Your task to perform on an android device: open app "NewsBreak: Local News & Alerts" (install if not already installed) and enter user name: "switch@outlook.com" and password: "fabrics" Image 0: 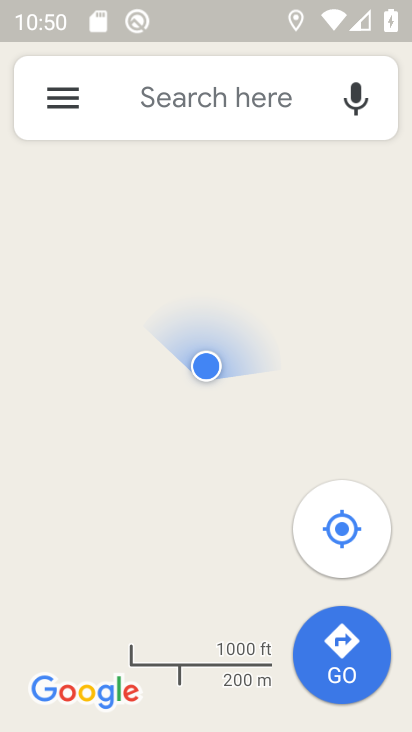
Step 0: press home button
Your task to perform on an android device: open app "NewsBreak: Local News & Alerts" (install if not already installed) and enter user name: "switch@outlook.com" and password: "fabrics" Image 1: 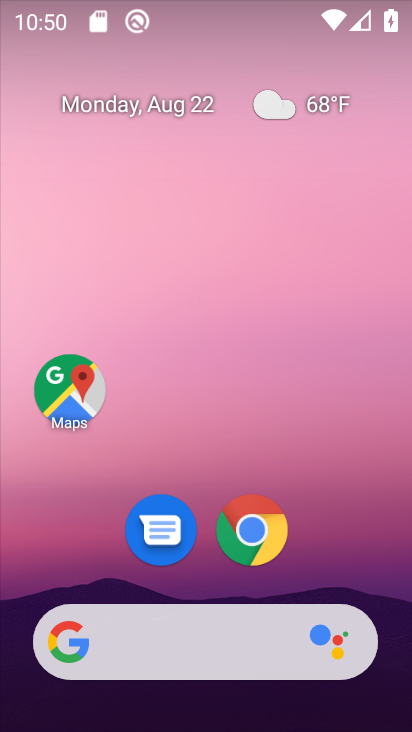
Step 1: drag from (183, 616) to (168, 19)
Your task to perform on an android device: open app "NewsBreak: Local News & Alerts" (install if not already installed) and enter user name: "switch@outlook.com" and password: "fabrics" Image 2: 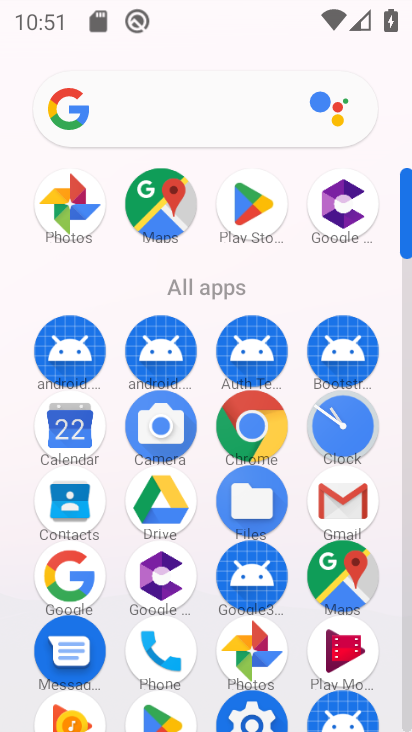
Step 2: click (250, 207)
Your task to perform on an android device: open app "NewsBreak: Local News & Alerts" (install if not already installed) and enter user name: "switch@outlook.com" and password: "fabrics" Image 3: 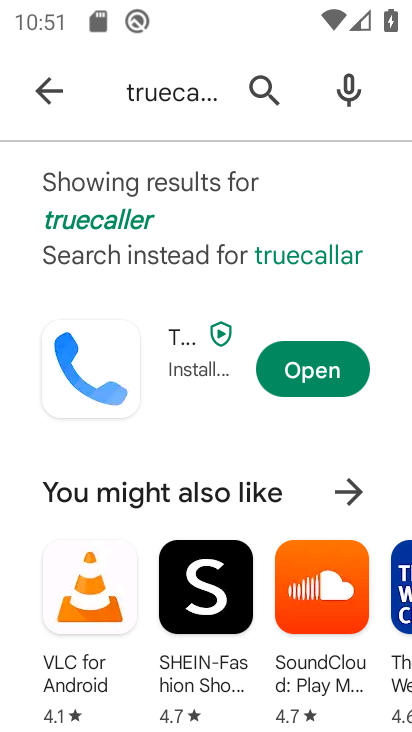
Step 3: press back button
Your task to perform on an android device: open app "NewsBreak: Local News & Alerts" (install if not already installed) and enter user name: "switch@outlook.com" and password: "fabrics" Image 4: 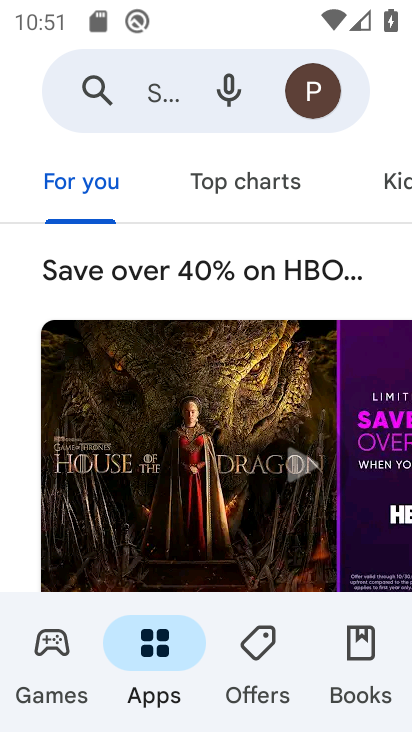
Step 4: click (161, 106)
Your task to perform on an android device: open app "NewsBreak: Local News & Alerts" (install if not already installed) and enter user name: "switch@outlook.com" and password: "fabrics" Image 5: 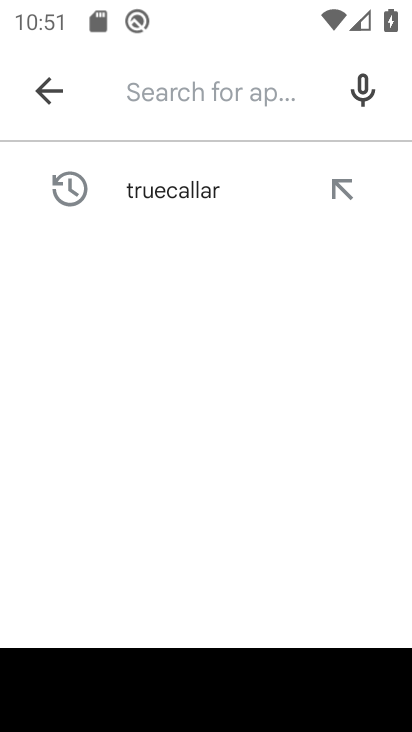
Step 5: type "NewsBreak: Local News & Alerts"
Your task to perform on an android device: open app "NewsBreak: Local News & Alerts" (install if not already installed) and enter user name: "switch@outlook.com" and password: "fabrics" Image 6: 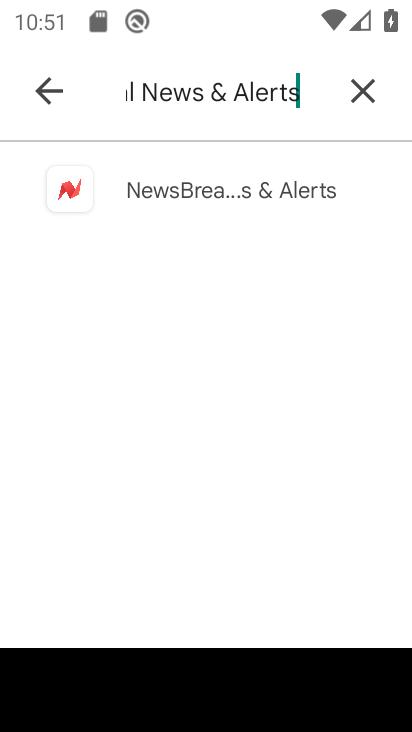
Step 6: click (175, 184)
Your task to perform on an android device: open app "NewsBreak: Local News & Alerts" (install if not already installed) and enter user name: "switch@outlook.com" and password: "fabrics" Image 7: 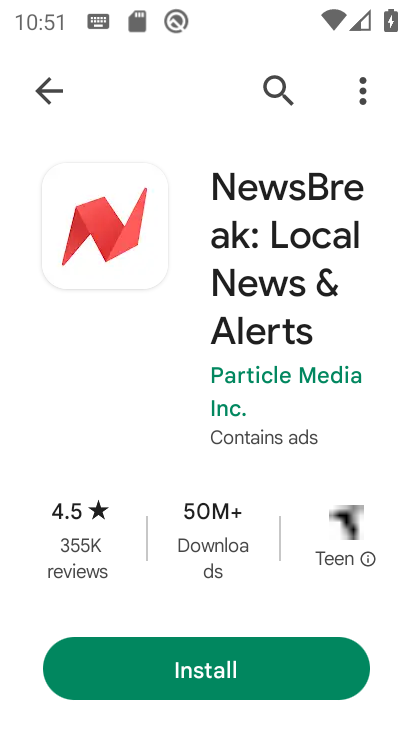
Step 7: click (210, 670)
Your task to perform on an android device: open app "NewsBreak: Local News & Alerts" (install if not already installed) and enter user name: "switch@outlook.com" and password: "fabrics" Image 8: 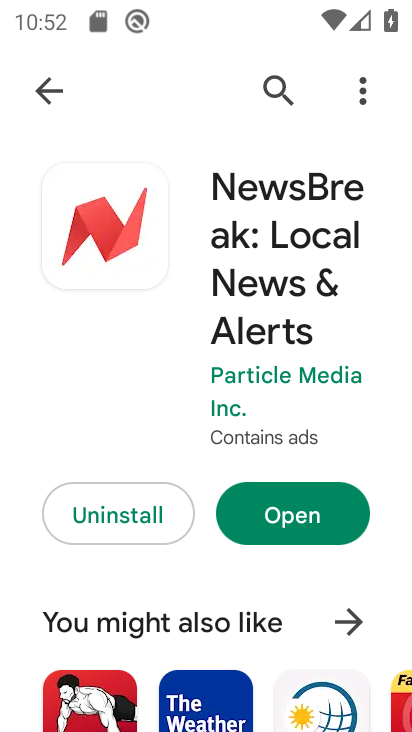
Step 8: click (295, 511)
Your task to perform on an android device: open app "NewsBreak: Local News & Alerts" (install if not already installed) and enter user name: "switch@outlook.com" and password: "fabrics" Image 9: 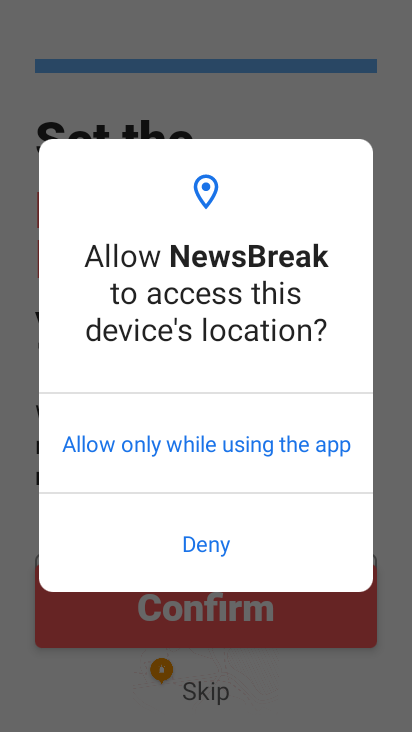
Step 9: click (234, 452)
Your task to perform on an android device: open app "NewsBreak: Local News & Alerts" (install if not already installed) and enter user name: "switch@outlook.com" and password: "fabrics" Image 10: 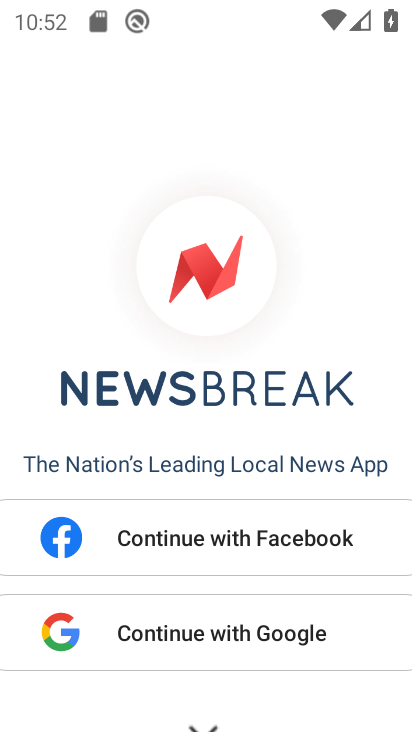
Step 10: click (282, 542)
Your task to perform on an android device: open app "NewsBreak: Local News & Alerts" (install if not already installed) and enter user name: "switch@outlook.com" and password: "fabrics" Image 11: 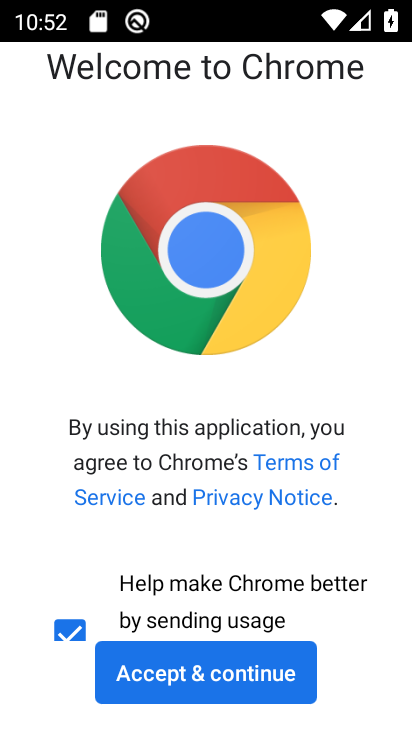
Step 11: press back button
Your task to perform on an android device: open app "NewsBreak: Local News & Alerts" (install if not already installed) and enter user name: "switch@outlook.com" and password: "fabrics" Image 12: 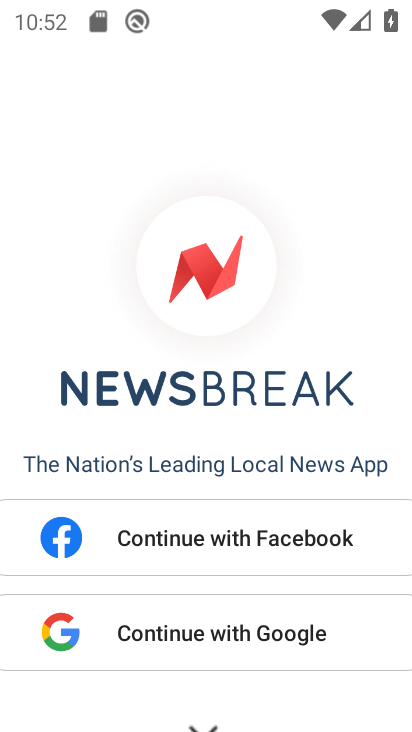
Step 12: click (201, 629)
Your task to perform on an android device: open app "NewsBreak: Local News & Alerts" (install if not already installed) and enter user name: "switch@outlook.com" and password: "fabrics" Image 13: 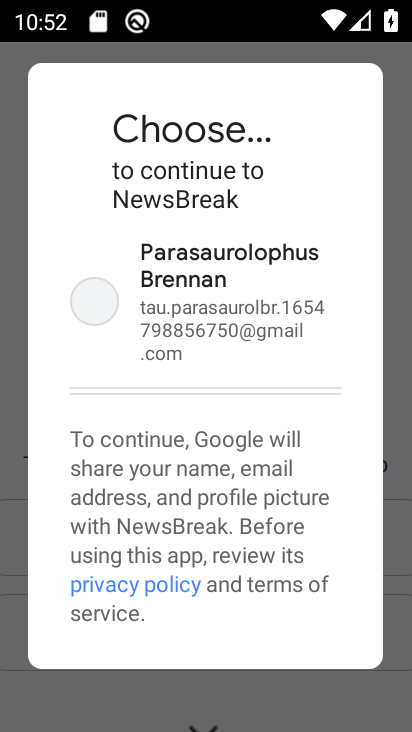
Step 13: drag from (170, 357) to (205, 125)
Your task to perform on an android device: open app "NewsBreak: Local News & Alerts" (install if not already installed) and enter user name: "switch@outlook.com" and password: "fabrics" Image 14: 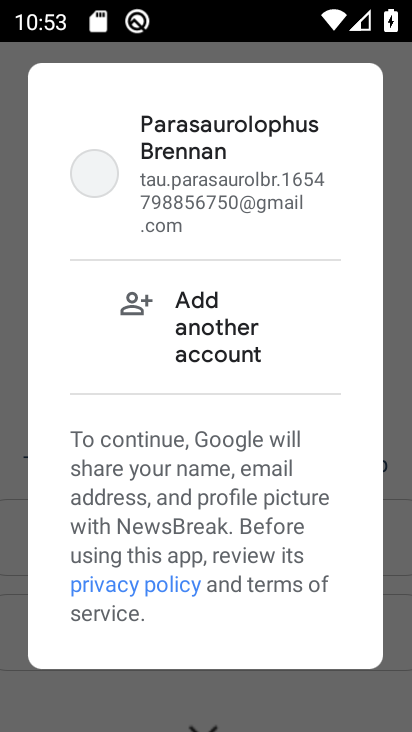
Step 14: click (198, 314)
Your task to perform on an android device: open app "NewsBreak: Local News & Alerts" (install if not already installed) and enter user name: "switch@outlook.com" and password: "fabrics" Image 15: 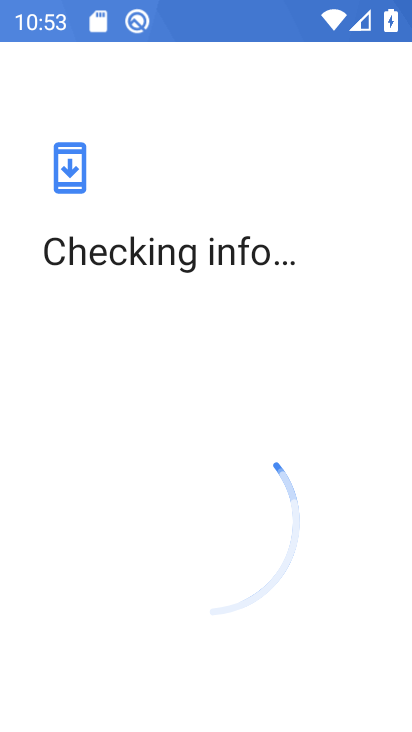
Step 15: drag from (206, 346) to (229, 220)
Your task to perform on an android device: open app "NewsBreak: Local News & Alerts" (install if not already installed) and enter user name: "switch@outlook.com" and password: "fabrics" Image 16: 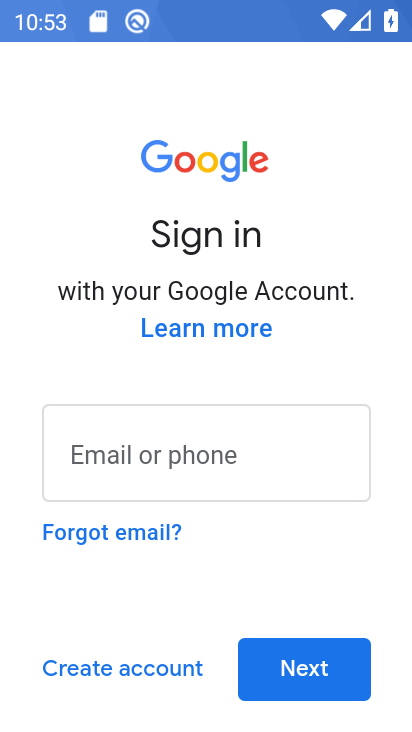
Step 16: click (143, 428)
Your task to perform on an android device: open app "NewsBreak: Local News & Alerts" (install if not already installed) and enter user name: "switch@outlook.com" and password: "fabrics" Image 17: 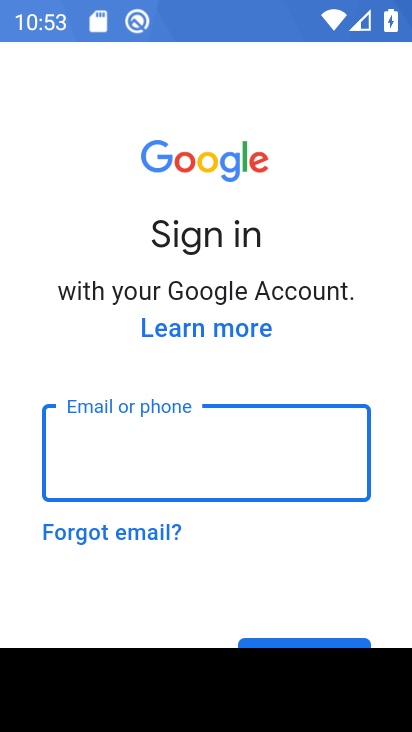
Step 17: click (143, 455)
Your task to perform on an android device: open app "NewsBreak: Local News & Alerts" (install if not already installed) and enter user name: "switch@outlook.com" and password: "fabrics" Image 18: 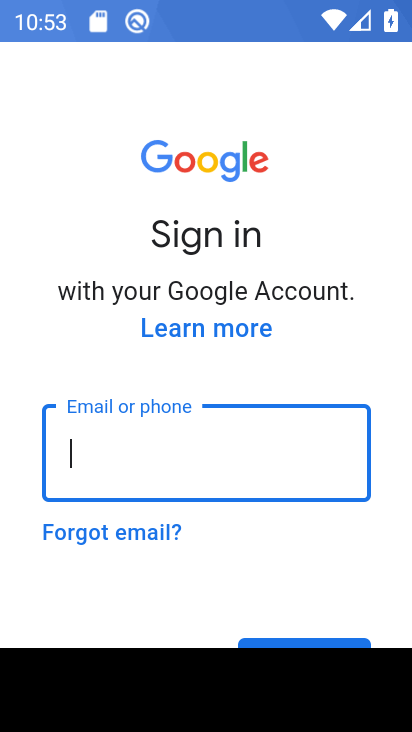
Step 18: type "switch@outlook.com"
Your task to perform on an android device: open app "NewsBreak: Local News & Alerts" (install if not already installed) and enter user name: "switch@outlook.com" and password: "fabrics" Image 19: 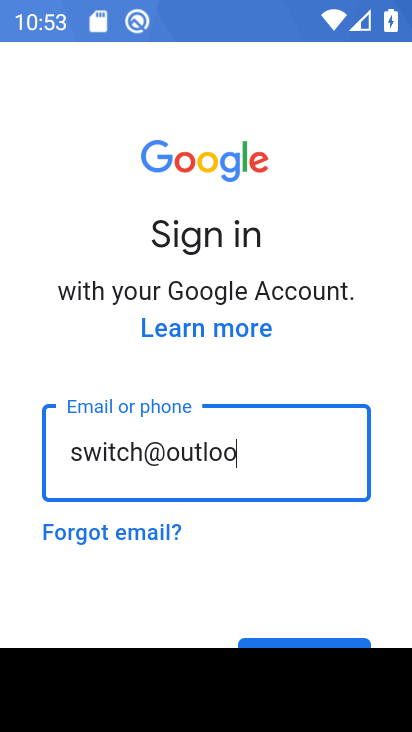
Step 19: type ""
Your task to perform on an android device: open app "NewsBreak: Local News & Alerts" (install if not already installed) and enter user name: "switch@outlook.com" and password: "fabrics" Image 20: 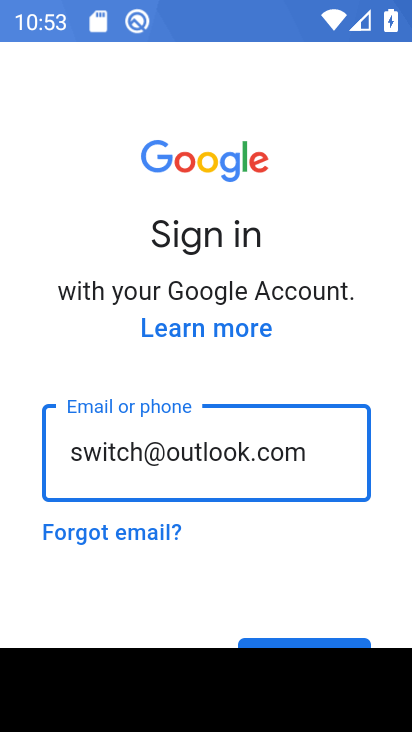
Step 20: drag from (293, 439) to (320, 308)
Your task to perform on an android device: open app "NewsBreak: Local News & Alerts" (install if not already installed) and enter user name: "switch@outlook.com" and password: "fabrics" Image 21: 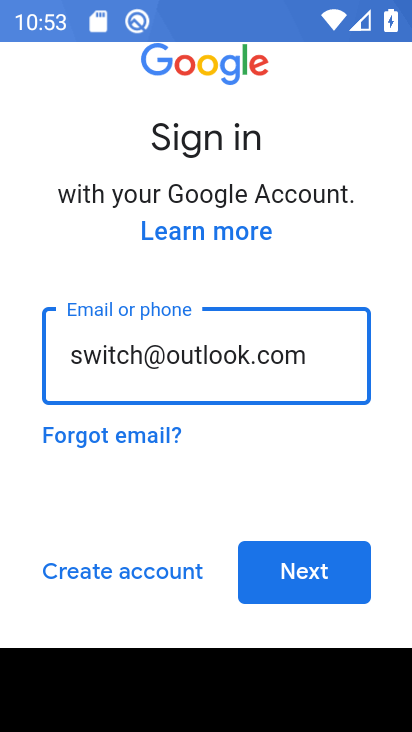
Step 21: click (309, 556)
Your task to perform on an android device: open app "NewsBreak: Local News & Alerts" (install if not already installed) and enter user name: "switch@outlook.com" and password: "fabrics" Image 22: 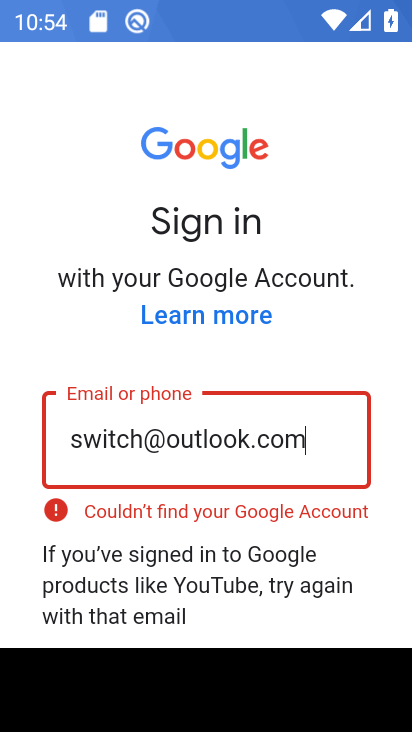
Step 22: task complete